Your task to perform on an android device: Turn on the flashlight Image 0: 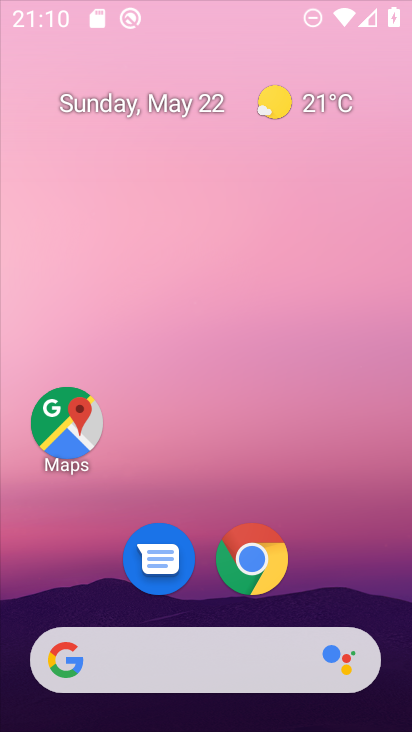
Step 0: press home button
Your task to perform on an android device: Turn on the flashlight Image 1: 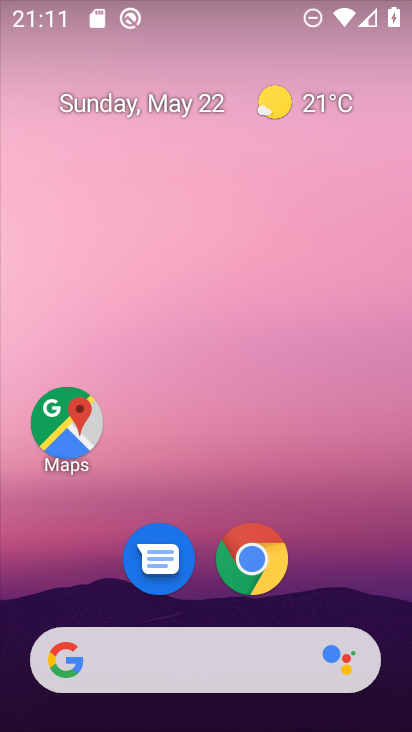
Step 1: drag from (242, 466) to (176, 76)
Your task to perform on an android device: Turn on the flashlight Image 2: 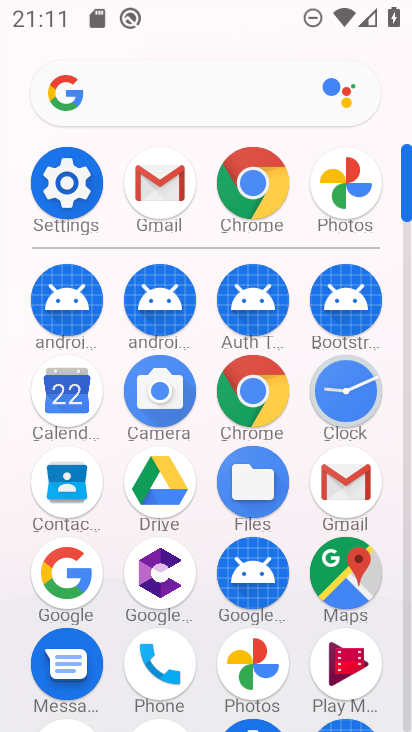
Step 2: click (59, 160)
Your task to perform on an android device: Turn on the flashlight Image 3: 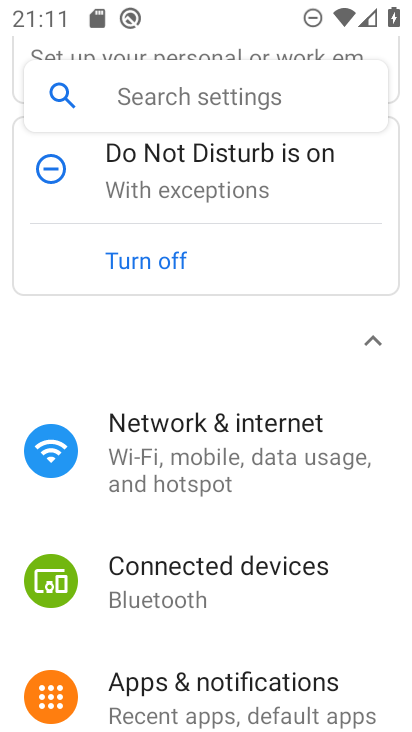
Step 3: click (165, 93)
Your task to perform on an android device: Turn on the flashlight Image 4: 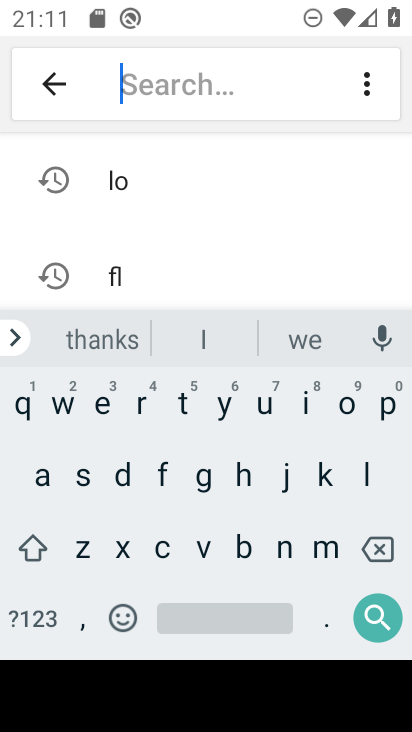
Step 4: click (160, 471)
Your task to perform on an android device: Turn on the flashlight Image 5: 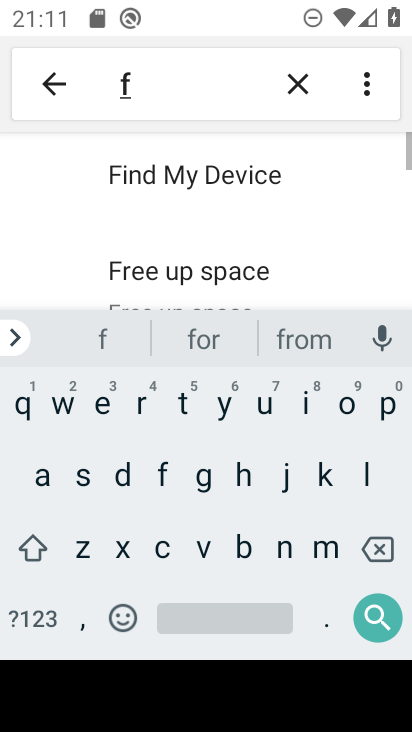
Step 5: click (362, 481)
Your task to perform on an android device: Turn on the flashlight Image 6: 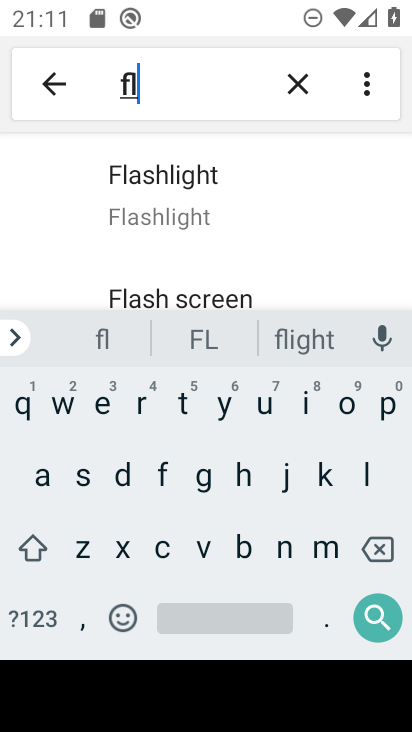
Step 6: click (176, 177)
Your task to perform on an android device: Turn on the flashlight Image 7: 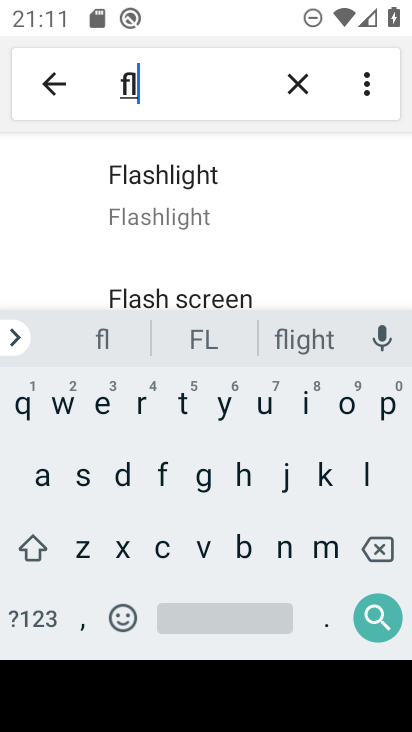
Step 7: click (192, 187)
Your task to perform on an android device: Turn on the flashlight Image 8: 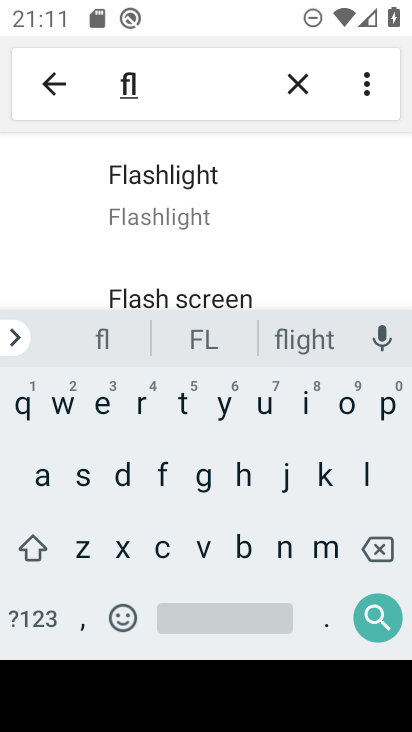
Step 8: task complete